Your task to perform on an android device: Set the phone to "Do not disturb". Image 0: 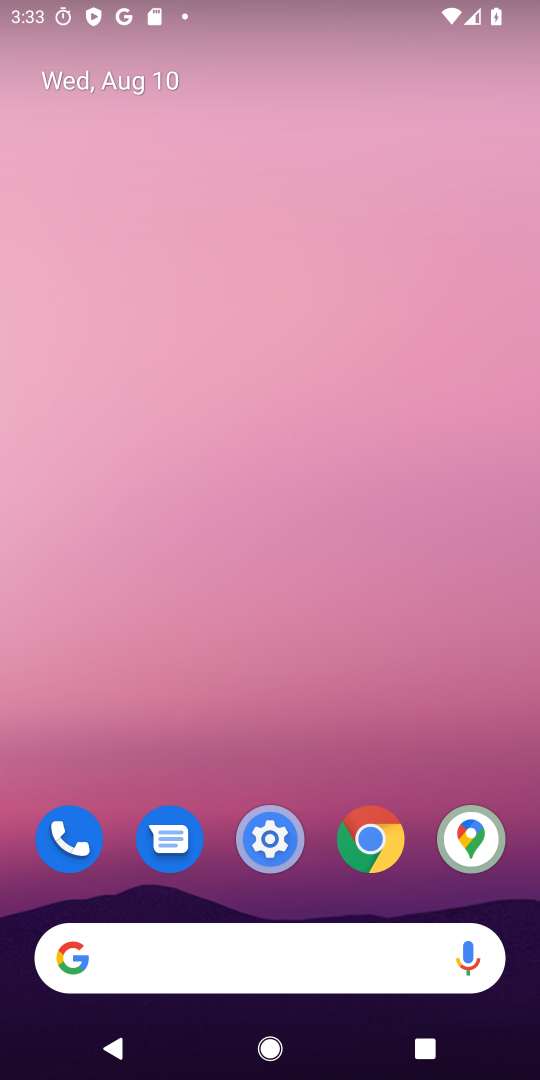
Step 0: click (272, 834)
Your task to perform on an android device: Set the phone to "Do not disturb". Image 1: 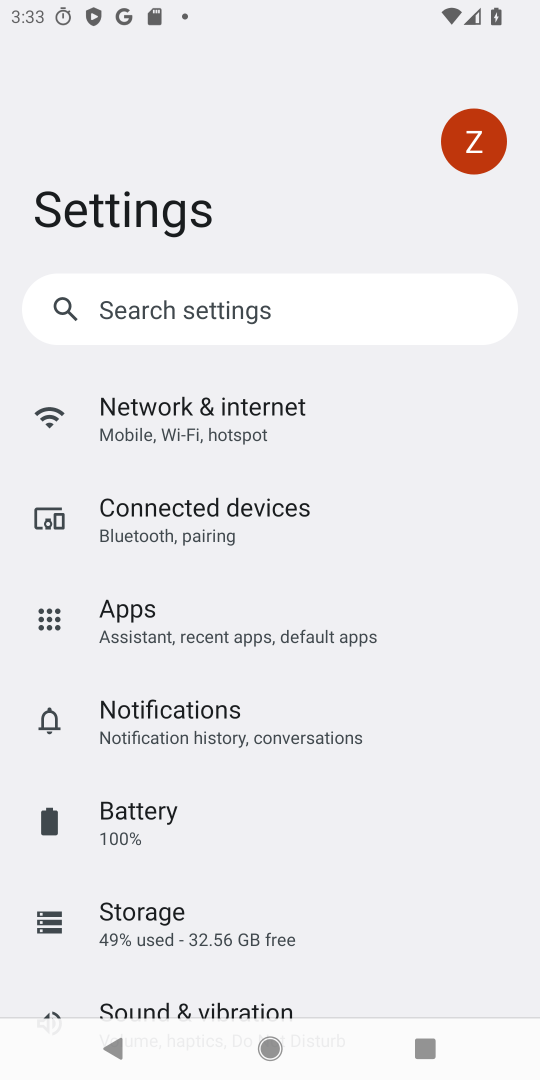
Step 1: drag from (398, 959) to (393, 789)
Your task to perform on an android device: Set the phone to "Do not disturb". Image 2: 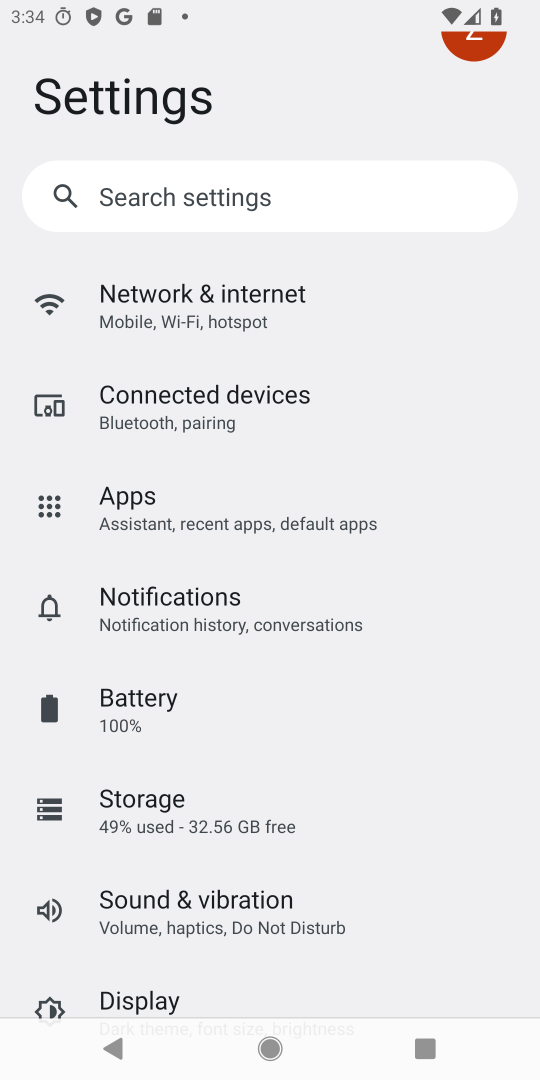
Step 2: click (202, 614)
Your task to perform on an android device: Set the phone to "Do not disturb". Image 3: 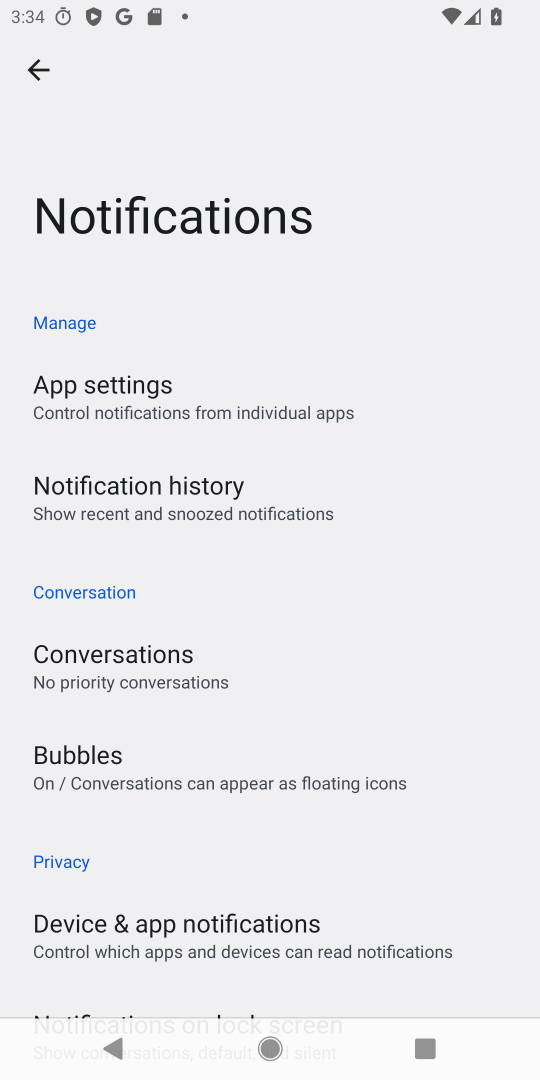
Step 3: click (32, 75)
Your task to perform on an android device: Set the phone to "Do not disturb". Image 4: 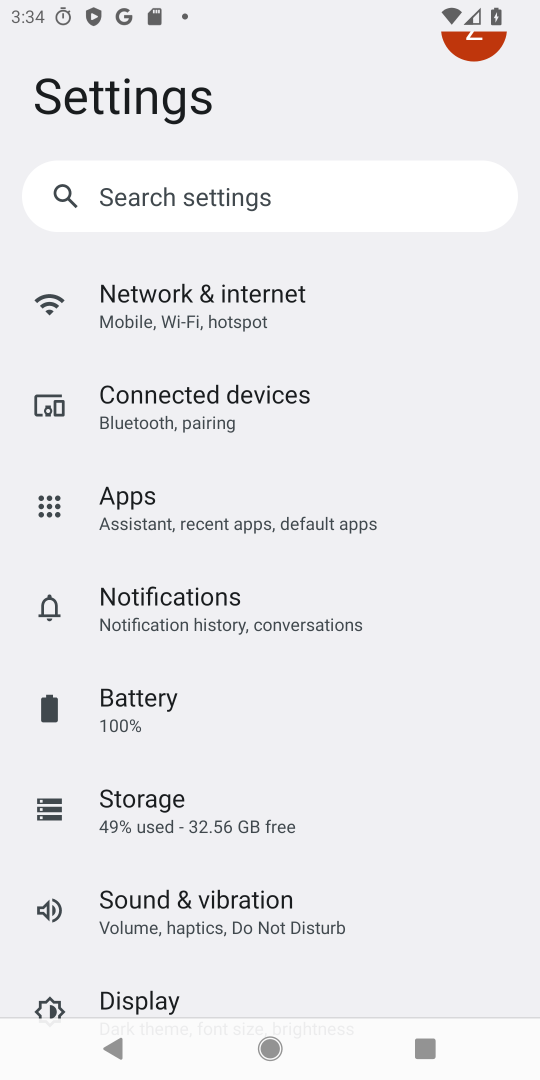
Step 4: drag from (410, 977) to (456, 423)
Your task to perform on an android device: Set the phone to "Do not disturb". Image 5: 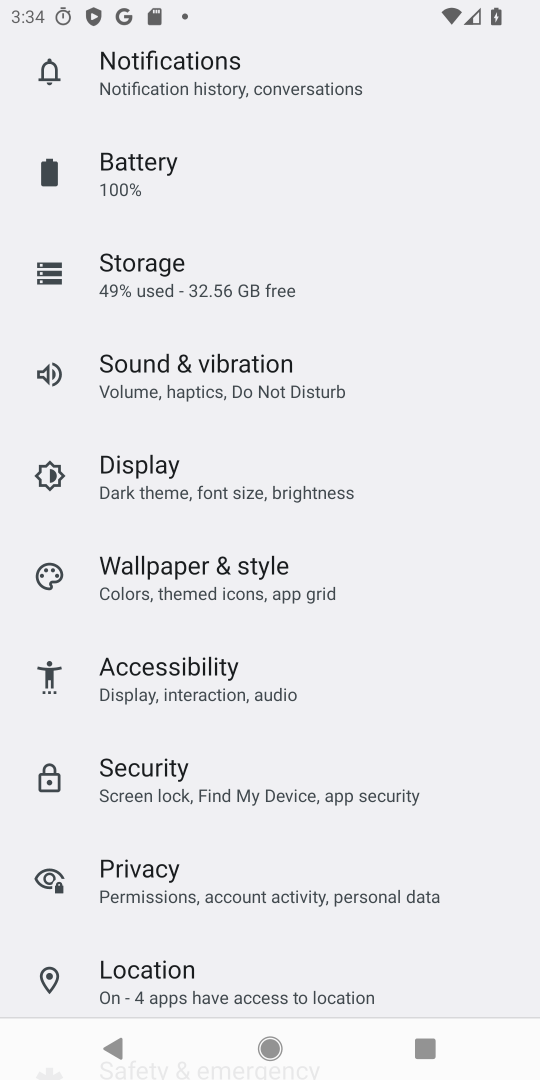
Step 5: drag from (472, 962) to (481, 387)
Your task to perform on an android device: Set the phone to "Do not disturb". Image 6: 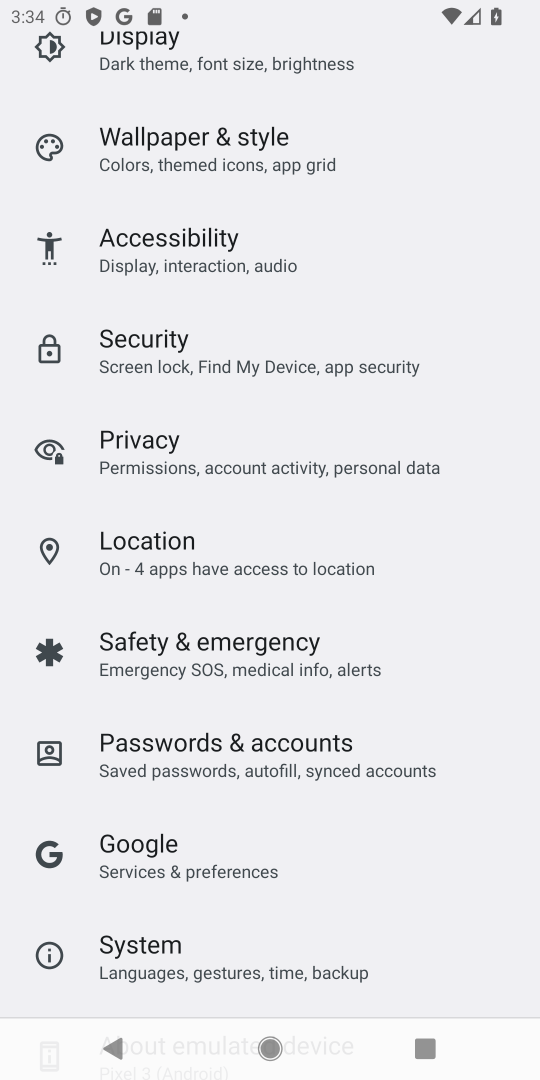
Step 6: drag from (470, 137) to (532, 614)
Your task to perform on an android device: Set the phone to "Do not disturb". Image 7: 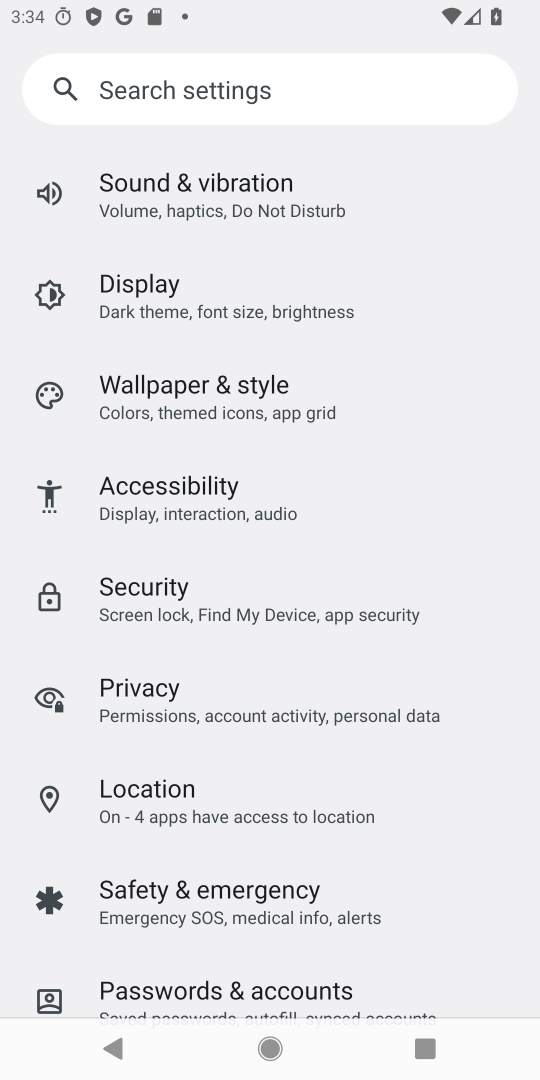
Step 7: click (267, 188)
Your task to perform on an android device: Set the phone to "Do not disturb". Image 8: 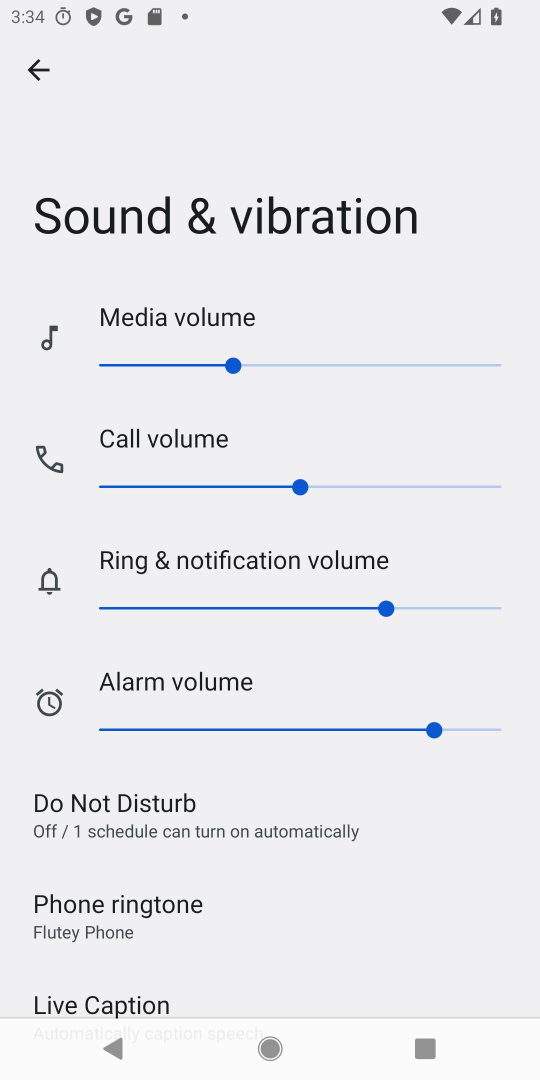
Step 8: click (175, 818)
Your task to perform on an android device: Set the phone to "Do not disturb". Image 9: 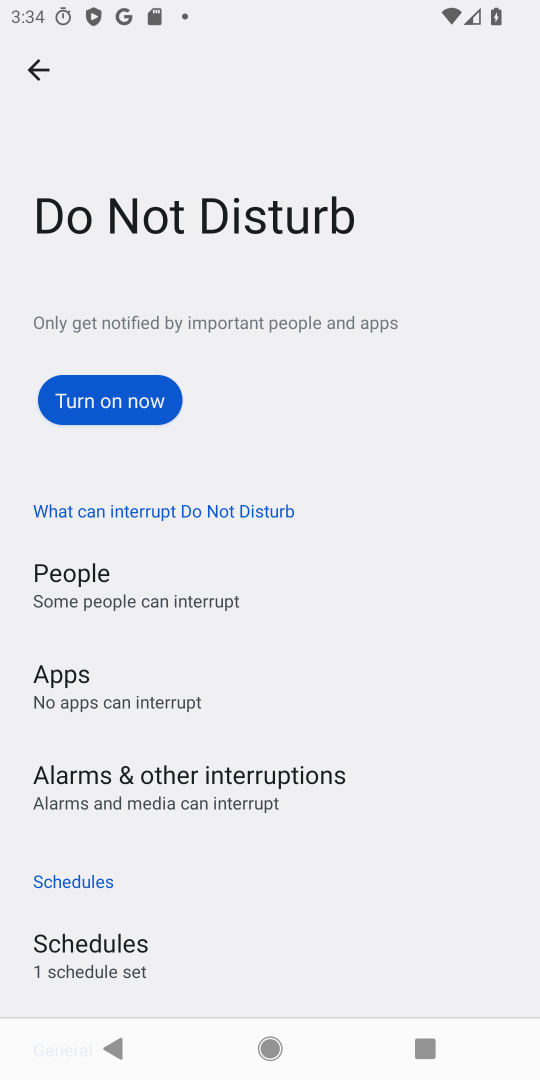
Step 9: click (126, 400)
Your task to perform on an android device: Set the phone to "Do not disturb". Image 10: 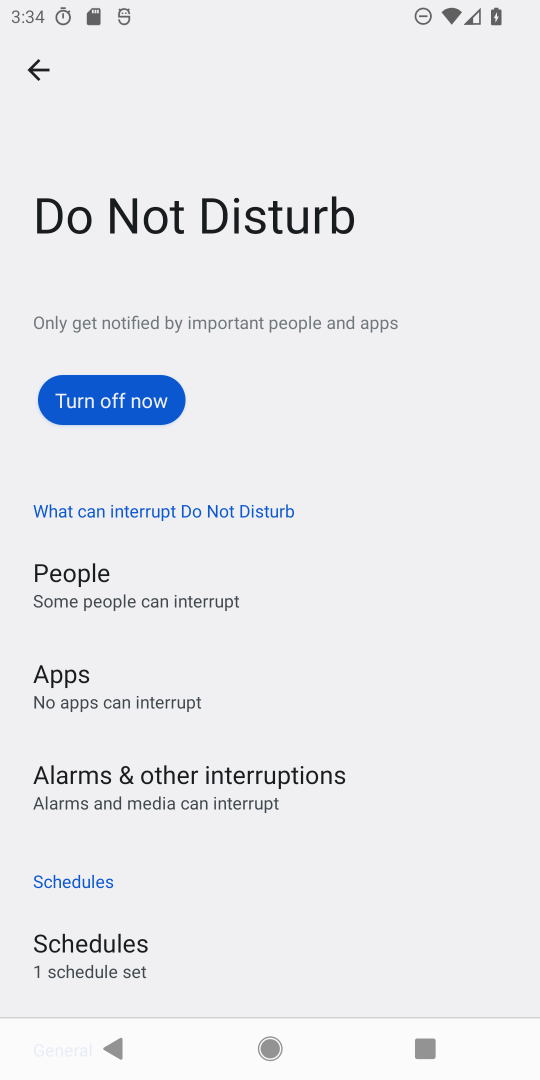
Step 10: task complete